Your task to perform on an android device: read, delete, or share a saved page in the chrome app Image 0: 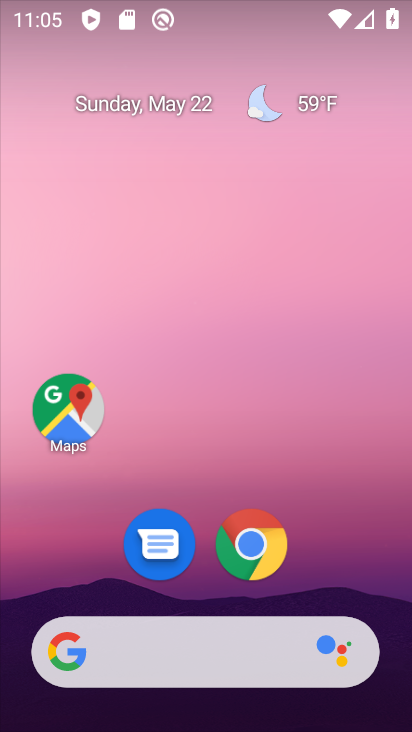
Step 0: drag from (326, 538) to (213, 6)
Your task to perform on an android device: read, delete, or share a saved page in the chrome app Image 1: 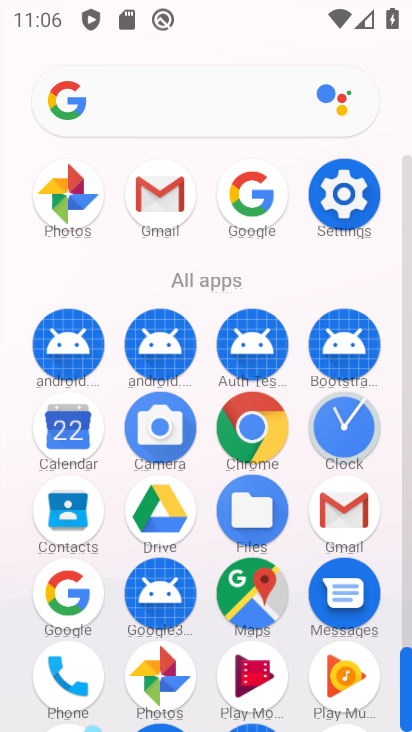
Step 1: click (273, 427)
Your task to perform on an android device: read, delete, or share a saved page in the chrome app Image 2: 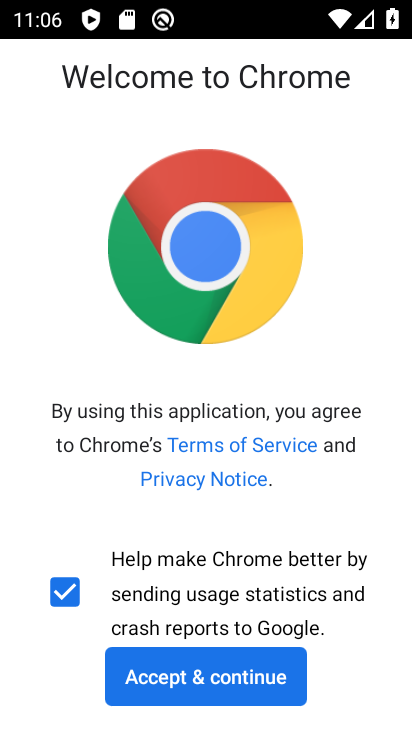
Step 2: click (281, 683)
Your task to perform on an android device: read, delete, or share a saved page in the chrome app Image 3: 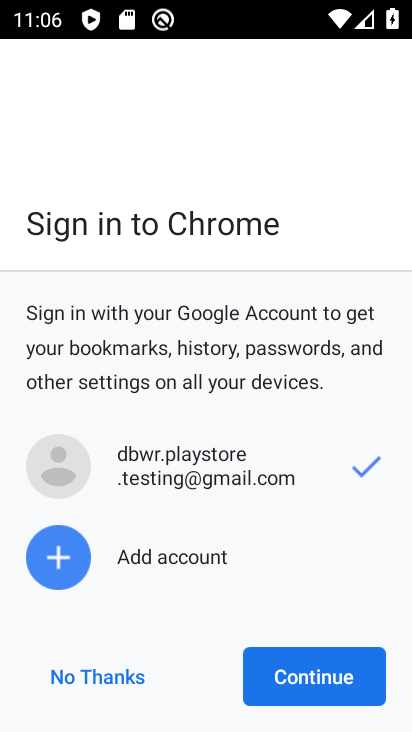
Step 3: click (105, 675)
Your task to perform on an android device: read, delete, or share a saved page in the chrome app Image 4: 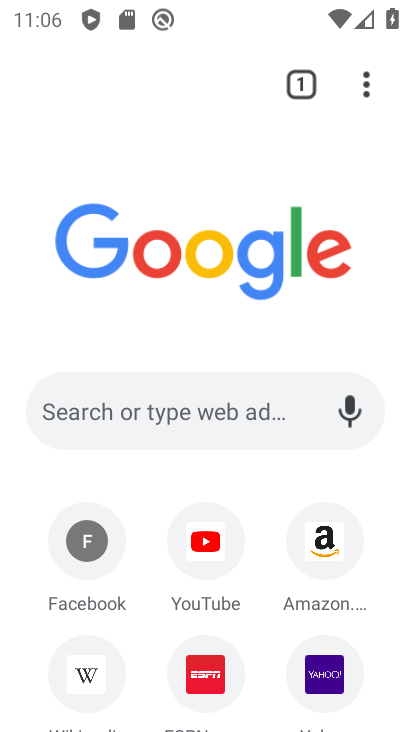
Step 4: task complete